Your task to perform on an android device: Open Google Chrome and open the bookmarks view Image 0: 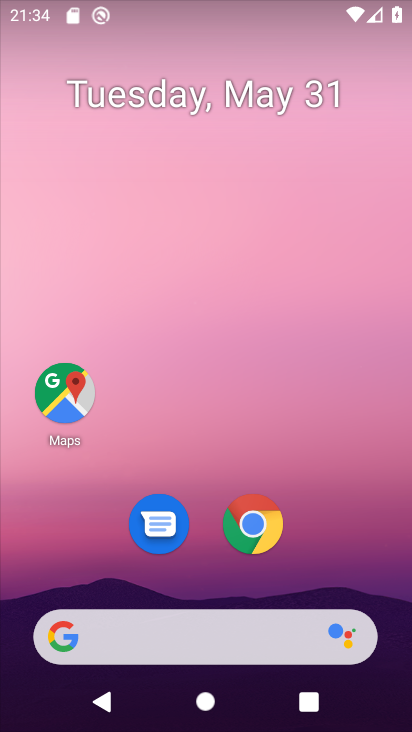
Step 0: click (254, 521)
Your task to perform on an android device: Open Google Chrome and open the bookmarks view Image 1: 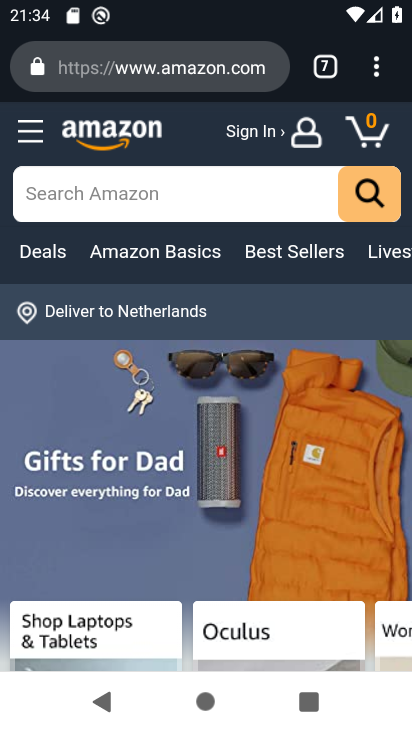
Step 1: click (371, 68)
Your task to perform on an android device: Open Google Chrome and open the bookmarks view Image 2: 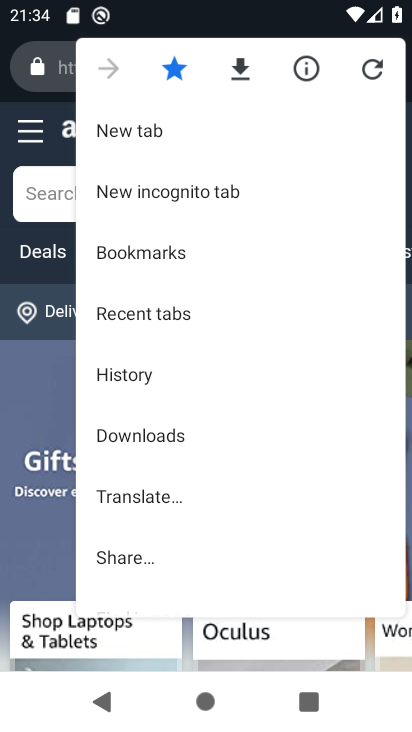
Step 2: click (203, 252)
Your task to perform on an android device: Open Google Chrome and open the bookmarks view Image 3: 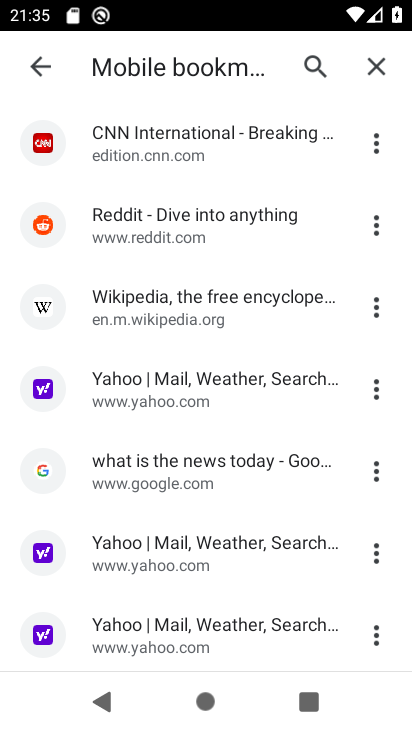
Step 3: task complete